Your task to perform on an android device: Open Chrome and go to settings Image 0: 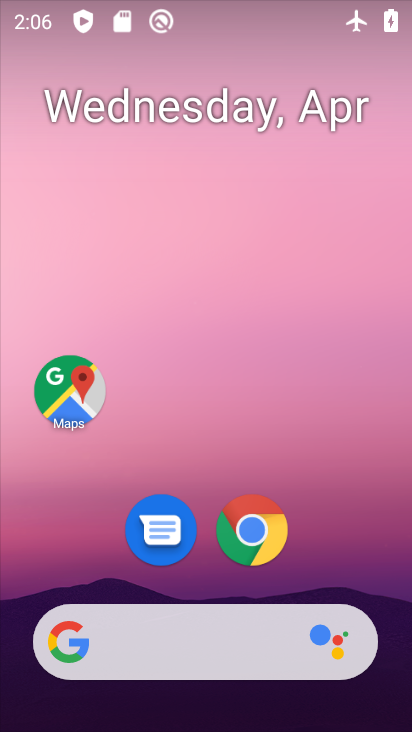
Step 0: click (257, 530)
Your task to perform on an android device: Open Chrome and go to settings Image 1: 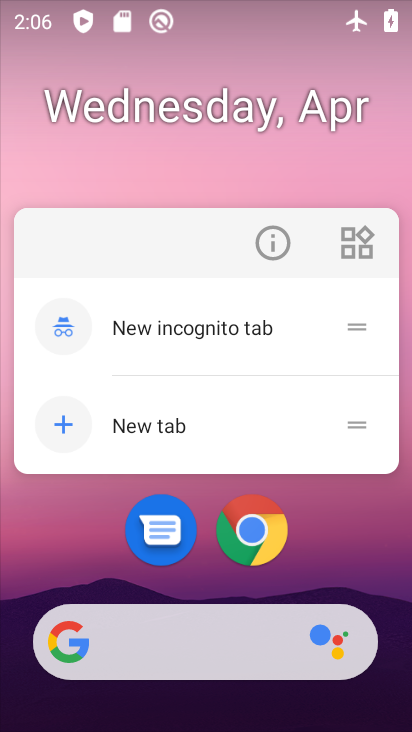
Step 1: click (262, 540)
Your task to perform on an android device: Open Chrome and go to settings Image 2: 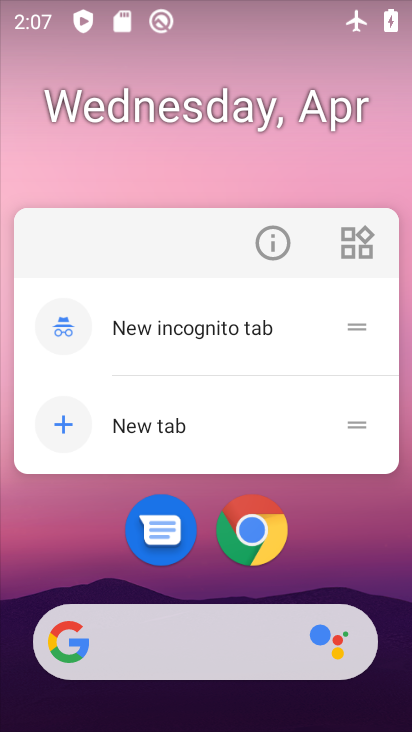
Step 2: click (247, 534)
Your task to perform on an android device: Open Chrome and go to settings Image 3: 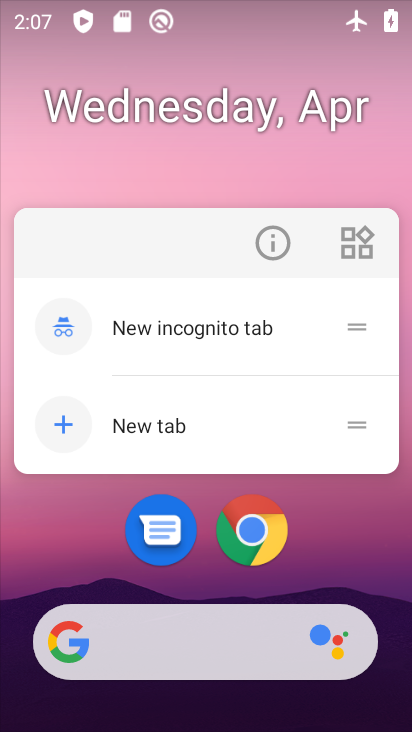
Step 3: drag from (323, 546) to (286, 20)
Your task to perform on an android device: Open Chrome and go to settings Image 4: 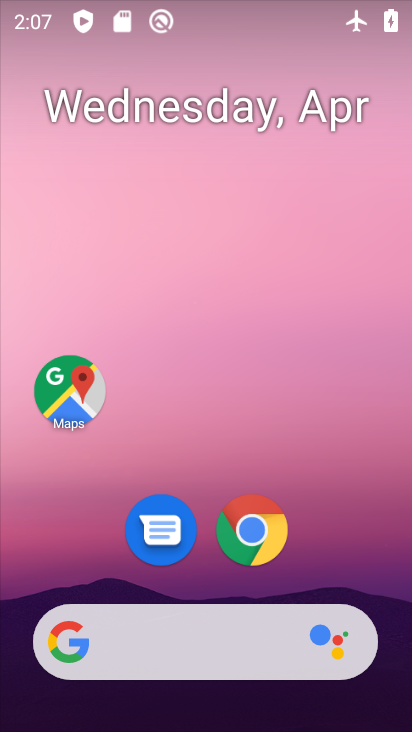
Step 4: drag from (304, 483) to (313, 128)
Your task to perform on an android device: Open Chrome and go to settings Image 5: 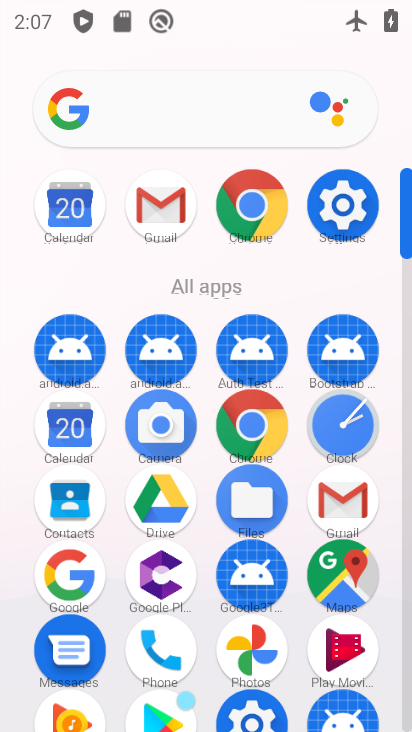
Step 5: click (249, 428)
Your task to perform on an android device: Open Chrome and go to settings Image 6: 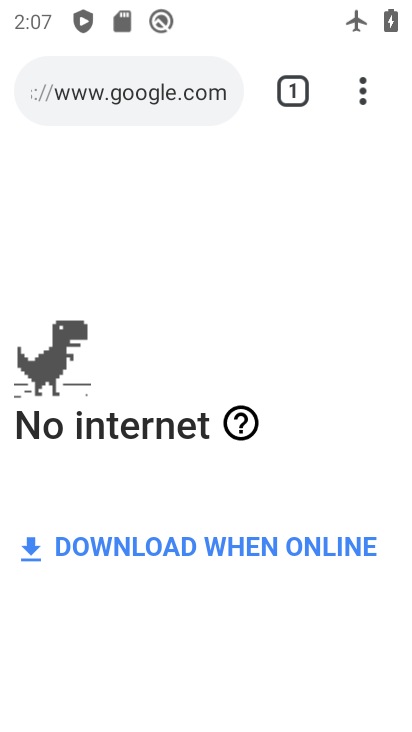
Step 6: click (361, 87)
Your task to perform on an android device: Open Chrome and go to settings Image 7: 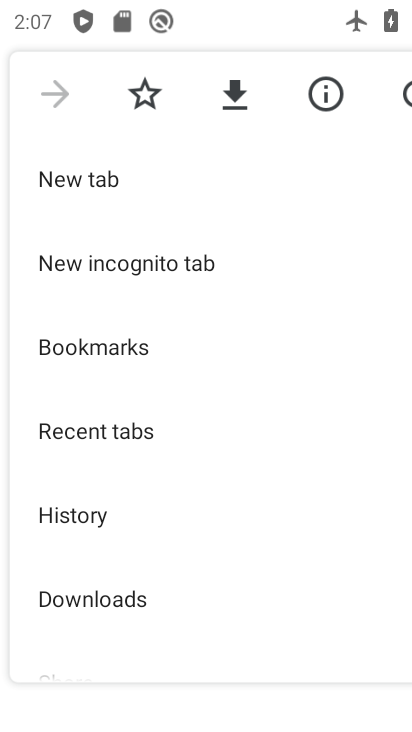
Step 7: drag from (169, 485) to (234, 83)
Your task to perform on an android device: Open Chrome and go to settings Image 8: 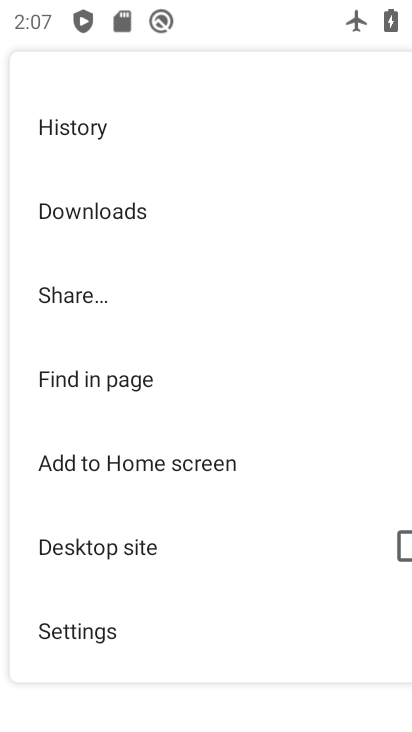
Step 8: click (90, 625)
Your task to perform on an android device: Open Chrome and go to settings Image 9: 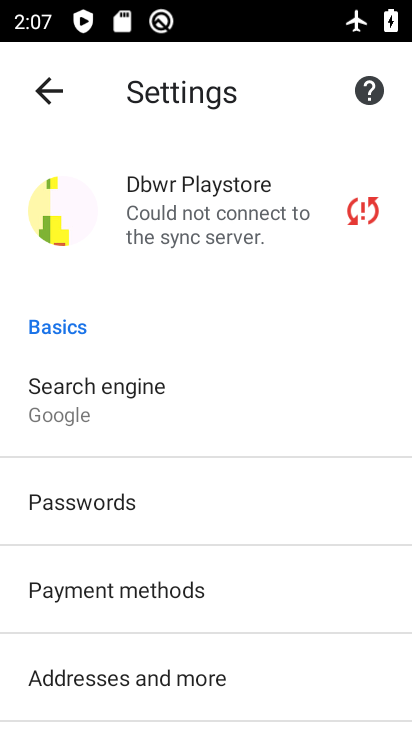
Step 9: task complete